Your task to perform on an android device: Open my contact list Image 0: 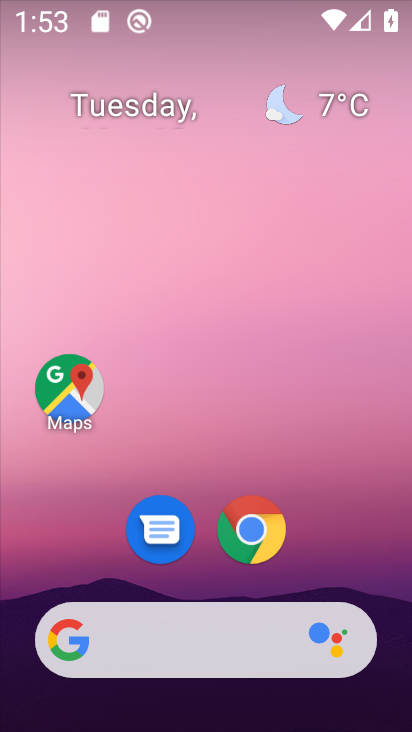
Step 0: drag from (342, 570) to (241, 43)
Your task to perform on an android device: Open my contact list Image 1: 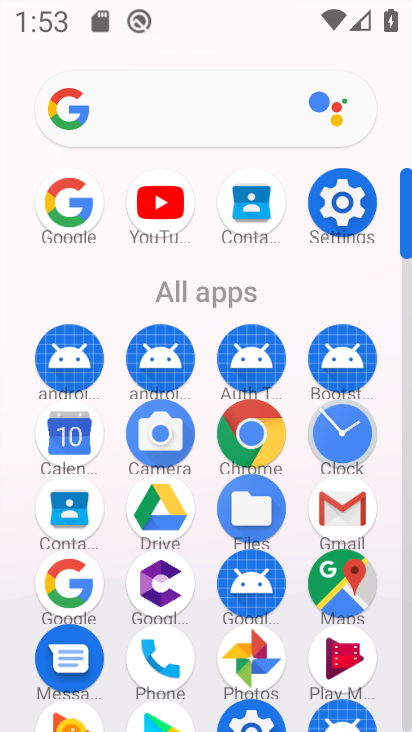
Step 1: click (70, 508)
Your task to perform on an android device: Open my contact list Image 2: 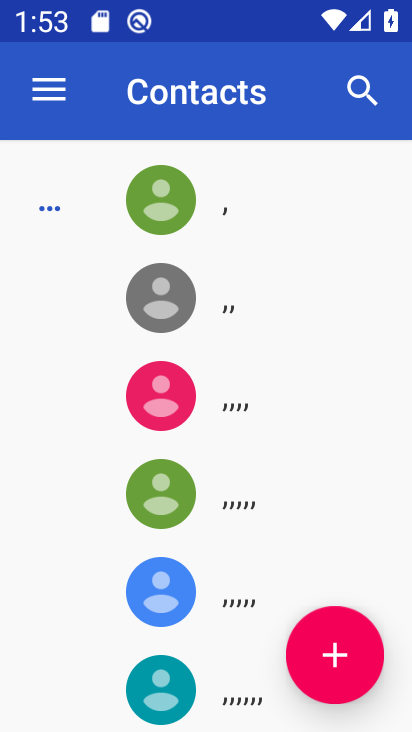
Step 2: task complete